Your task to perform on an android device: delete the emails in spam in the gmail app Image 0: 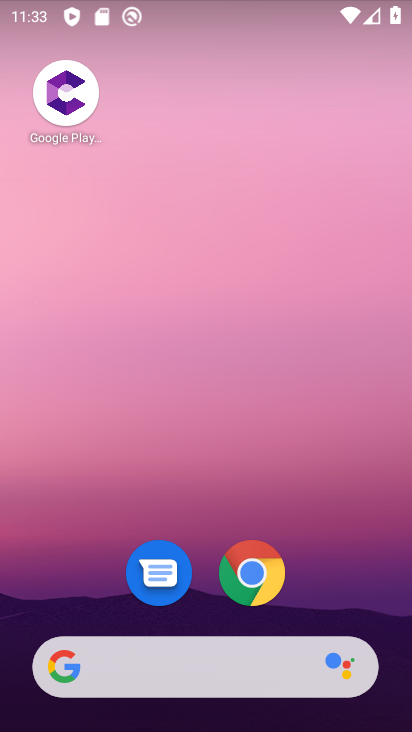
Step 0: drag from (146, 656) to (127, 337)
Your task to perform on an android device: delete the emails in spam in the gmail app Image 1: 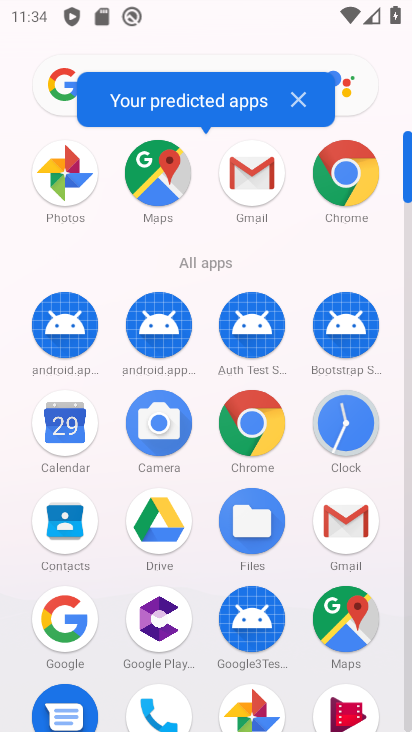
Step 1: click (240, 182)
Your task to perform on an android device: delete the emails in spam in the gmail app Image 2: 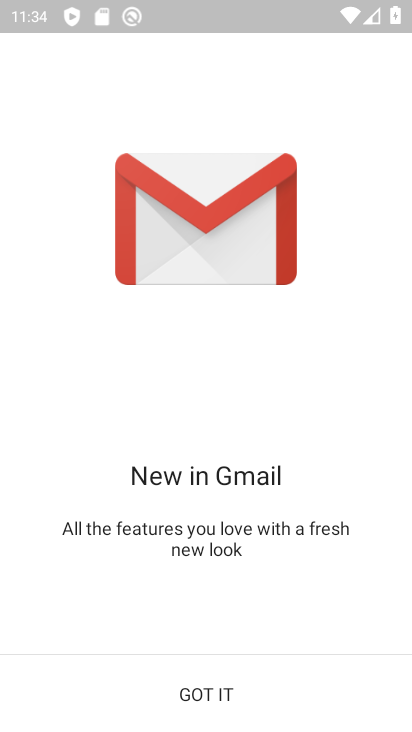
Step 2: click (232, 699)
Your task to perform on an android device: delete the emails in spam in the gmail app Image 3: 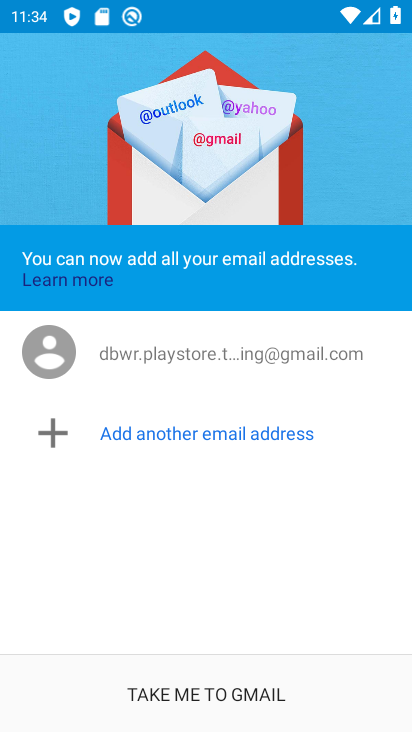
Step 3: click (218, 691)
Your task to perform on an android device: delete the emails in spam in the gmail app Image 4: 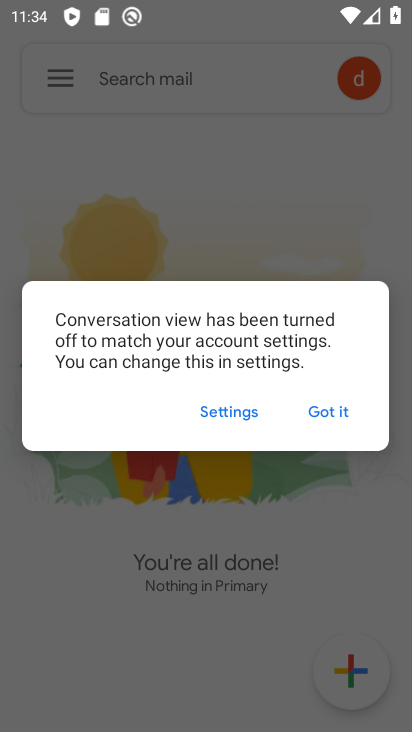
Step 4: click (328, 407)
Your task to perform on an android device: delete the emails in spam in the gmail app Image 5: 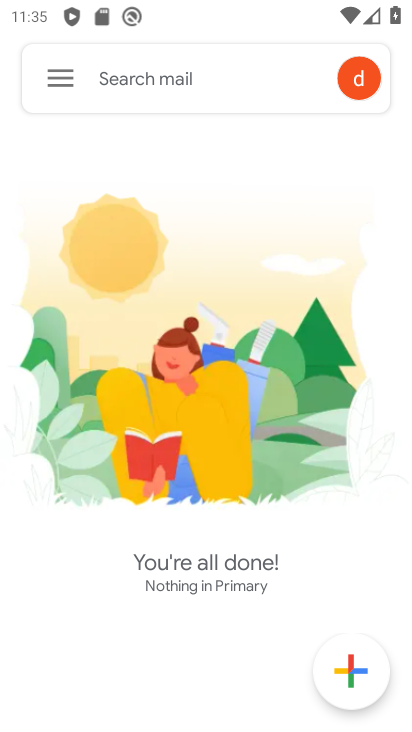
Step 5: click (67, 67)
Your task to perform on an android device: delete the emails in spam in the gmail app Image 6: 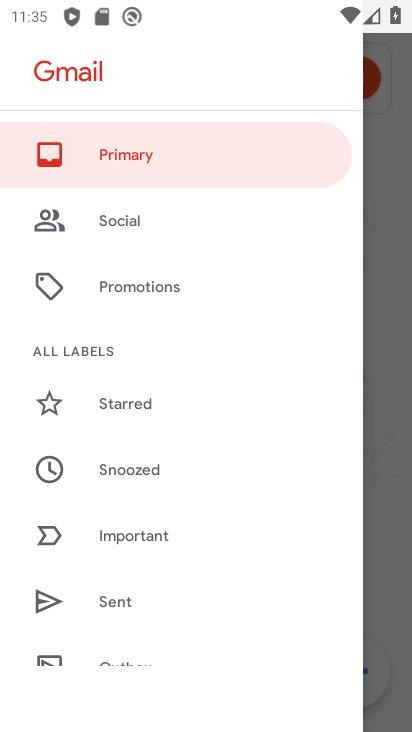
Step 6: drag from (141, 522) to (110, 24)
Your task to perform on an android device: delete the emails in spam in the gmail app Image 7: 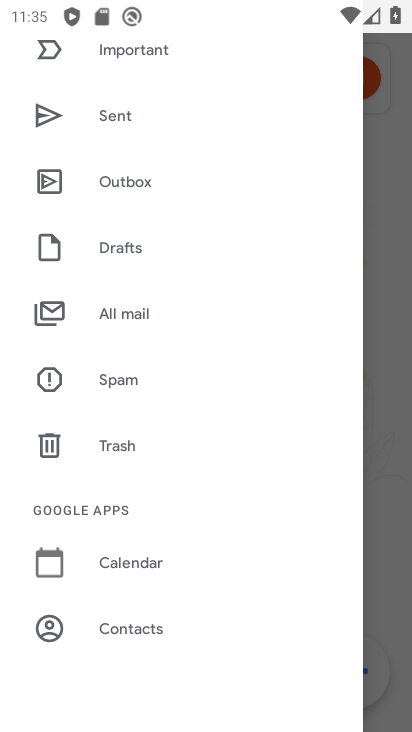
Step 7: click (137, 384)
Your task to perform on an android device: delete the emails in spam in the gmail app Image 8: 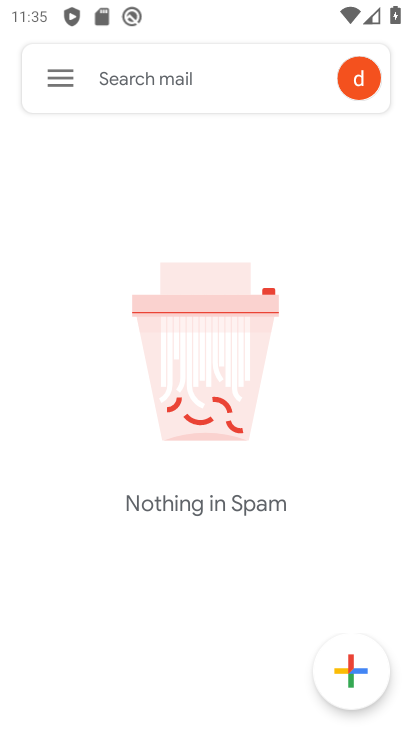
Step 8: task complete